Your task to perform on an android device: toggle improve location accuracy Image 0: 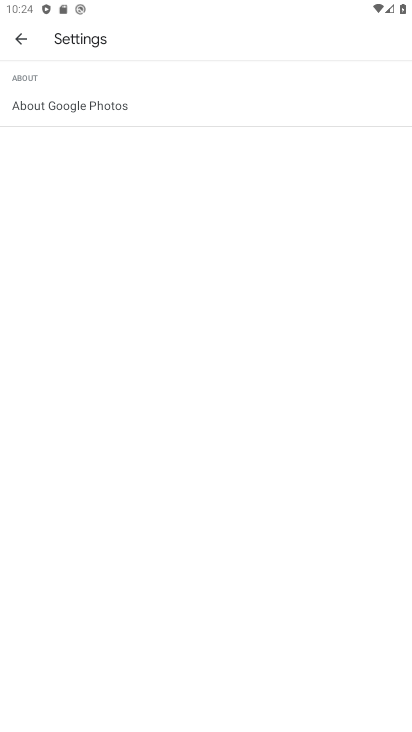
Step 0: press home button
Your task to perform on an android device: toggle improve location accuracy Image 1: 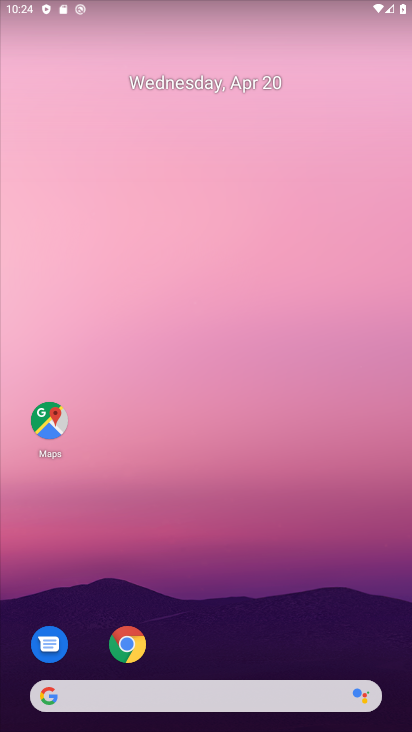
Step 1: drag from (196, 491) to (226, 106)
Your task to perform on an android device: toggle improve location accuracy Image 2: 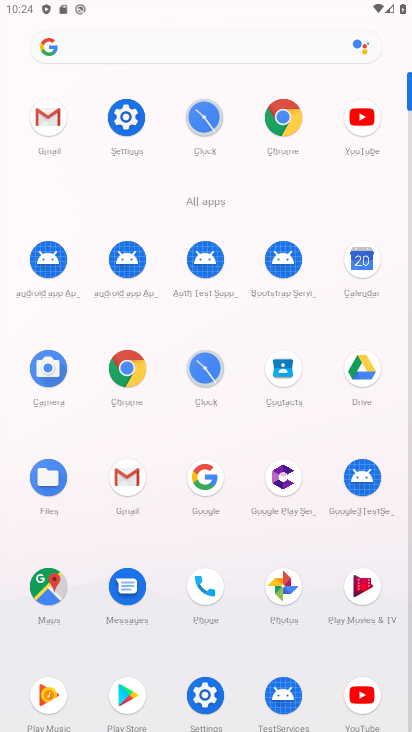
Step 2: click (122, 121)
Your task to perform on an android device: toggle improve location accuracy Image 3: 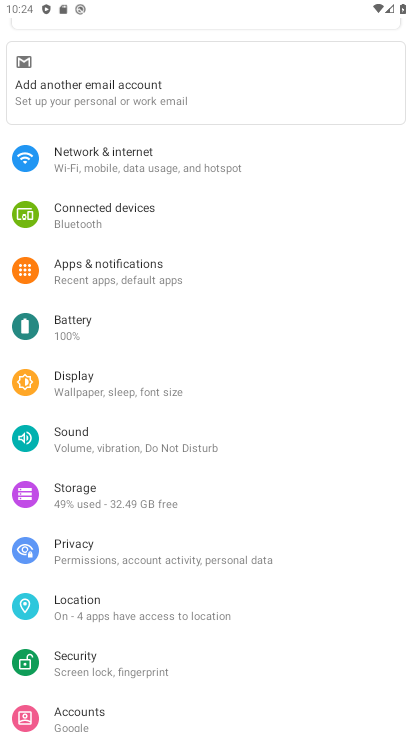
Step 3: click (132, 611)
Your task to perform on an android device: toggle improve location accuracy Image 4: 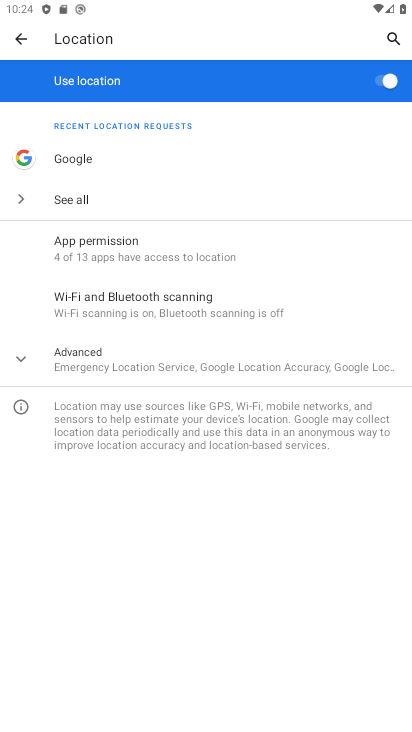
Step 4: click (112, 358)
Your task to perform on an android device: toggle improve location accuracy Image 5: 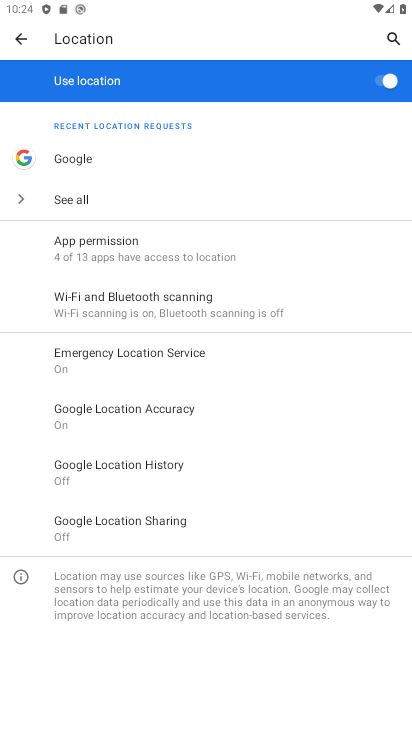
Step 5: click (160, 414)
Your task to perform on an android device: toggle improve location accuracy Image 6: 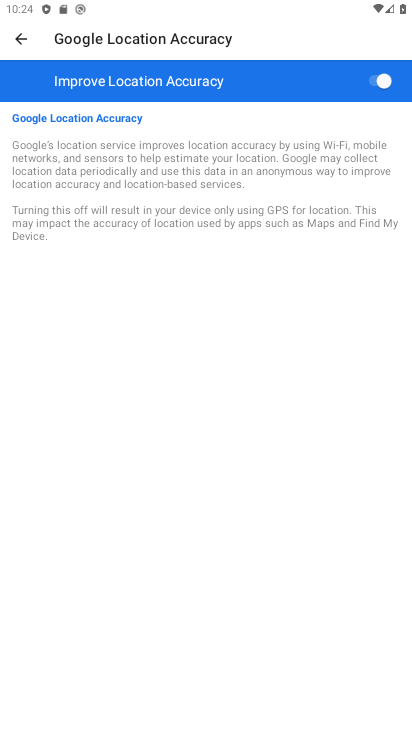
Step 6: click (375, 83)
Your task to perform on an android device: toggle improve location accuracy Image 7: 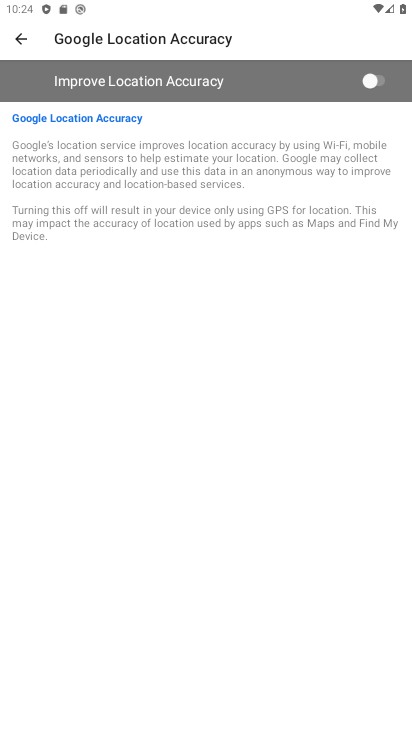
Step 7: task complete